Your task to perform on an android device: turn smart compose on in the gmail app Image 0: 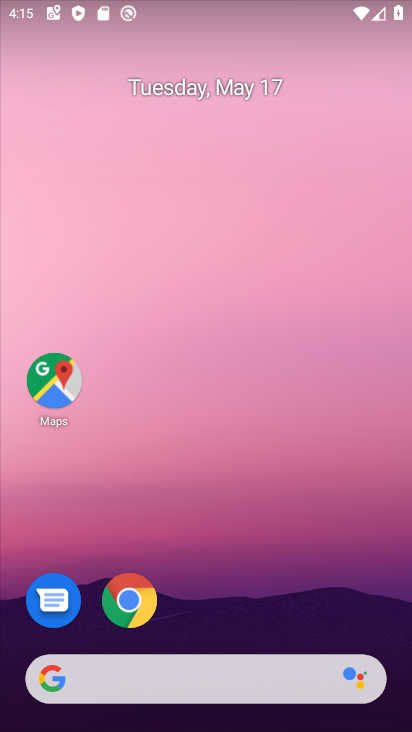
Step 0: drag from (199, 577) to (252, 37)
Your task to perform on an android device: turn smart compose on in the gmail app Image 1: 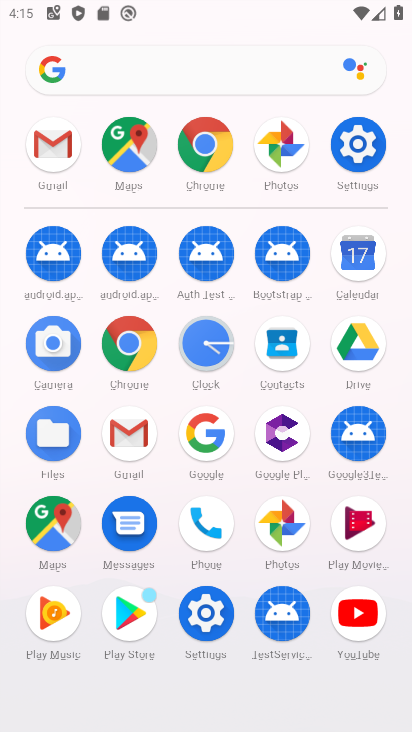
Step 1: click (124, 447)
Your task to perform on an android device: turn smart compose on in the gmail app Image 2: 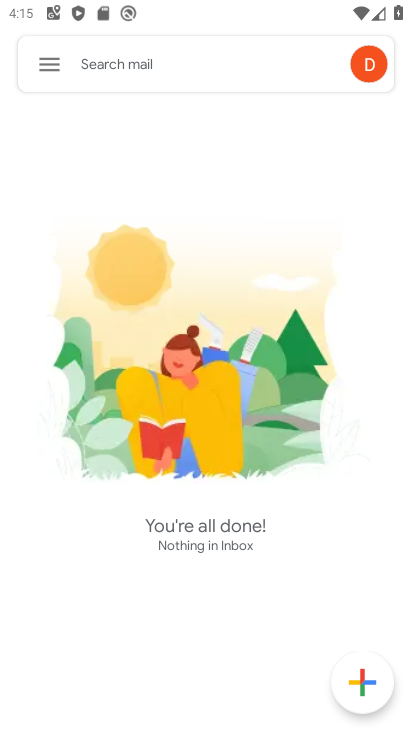
Step 2: click (47, 53)
Your task to perform on an android device: turn smart compose on in the gmail app Image 3: 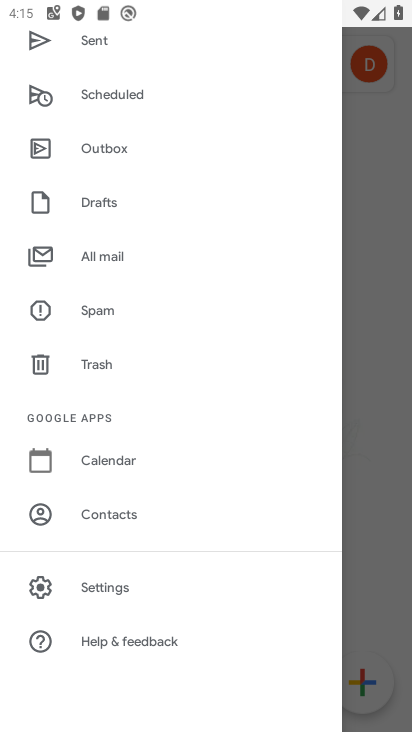
Step 3: click (118, 583)
Your task to perform on an android device: turn smart compose on in the gmail app Image 4: 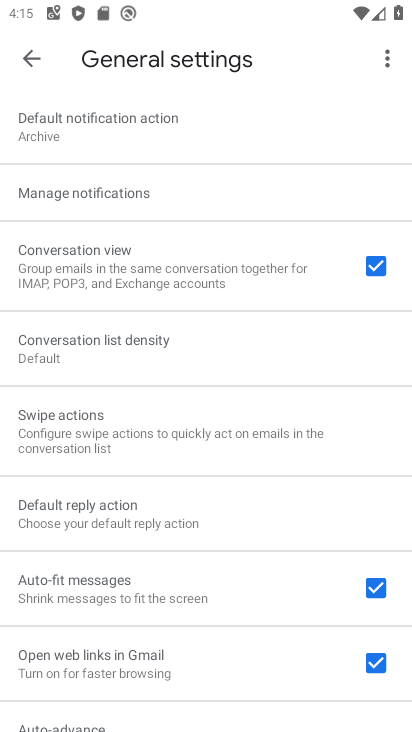
Step 4: click (34, 61)
Your task to perform on an android device: turn smart compose on in the gmail app Image 5: 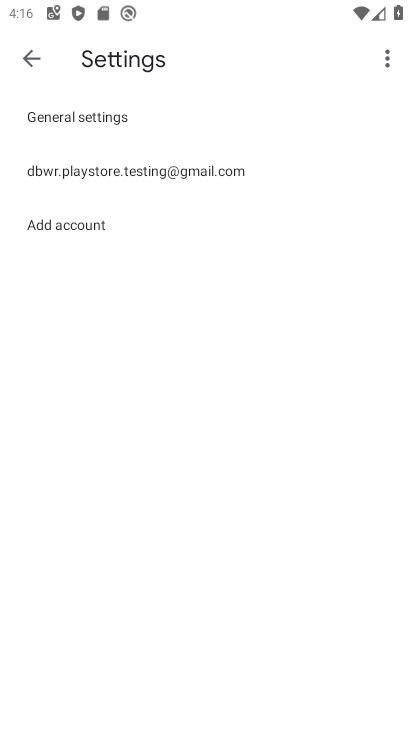
Step 5: click (80, 165)
Your task to perform on an android device: turn smart compose on in the gmail app Image 6: 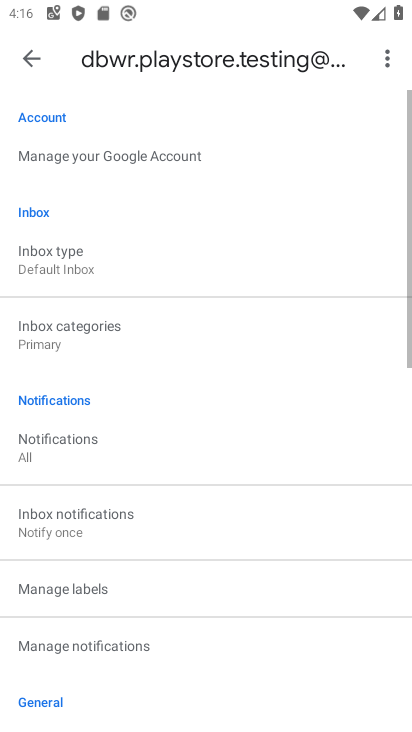
Step 6: task complete